Your task to perform on an android device: Open Google Image 0: 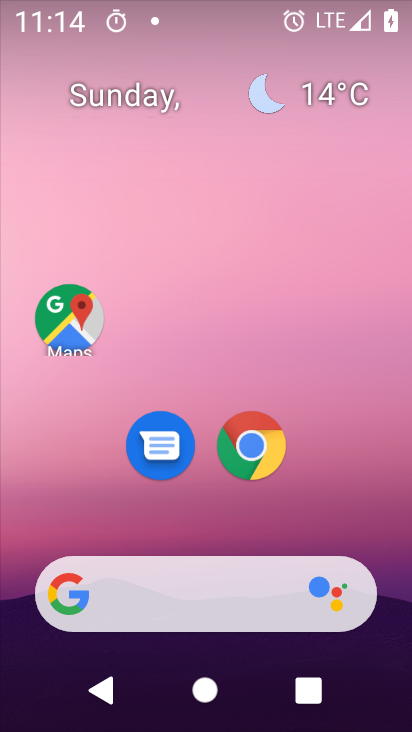
Step 0: drag from (207, 526) to (287, 101)
Your task to perform on an android device: Open Google Image 1: 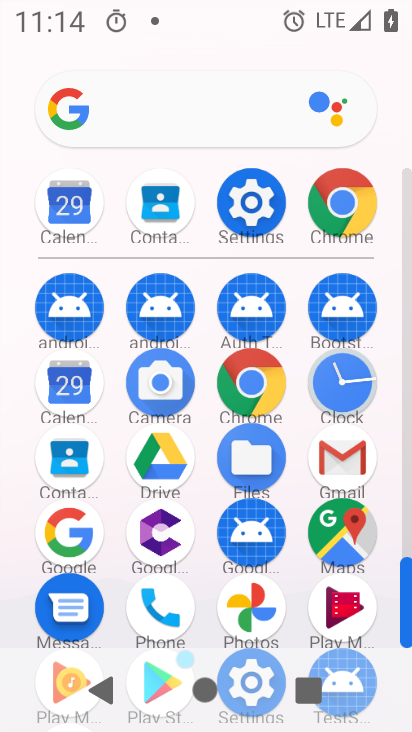
Step 1: click (71, 529)
Your task to perform on an android device: Open Google Image 2: 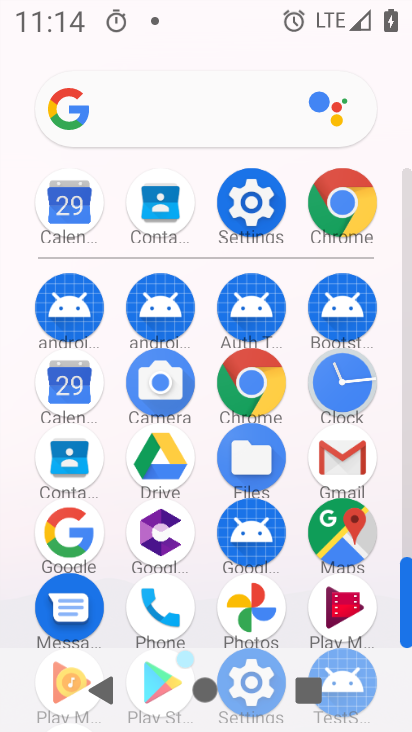
Step 2: click (71, 529)
Your task to perform on an android device: Open Google Image 3: 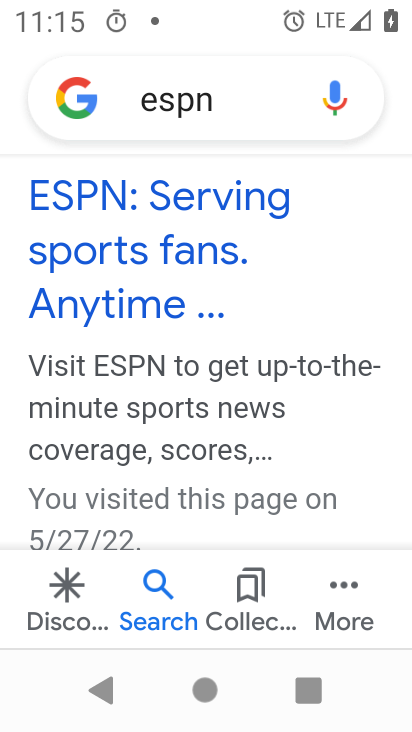
Step 3: task complete